Your task to perform on an android device: Go to Android settings Image 0: 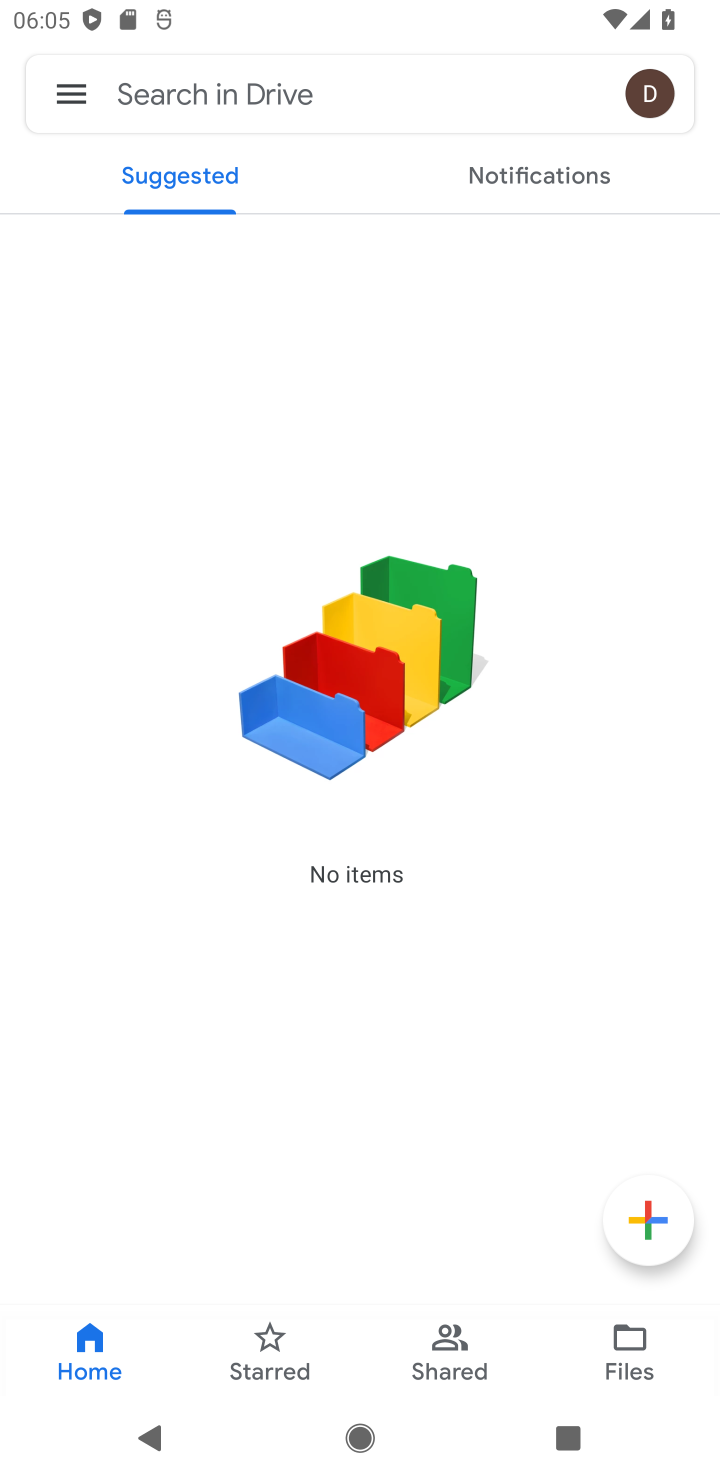
Step 0: press home button
Your task to perform on an android device: Go to Android settings Image 1: 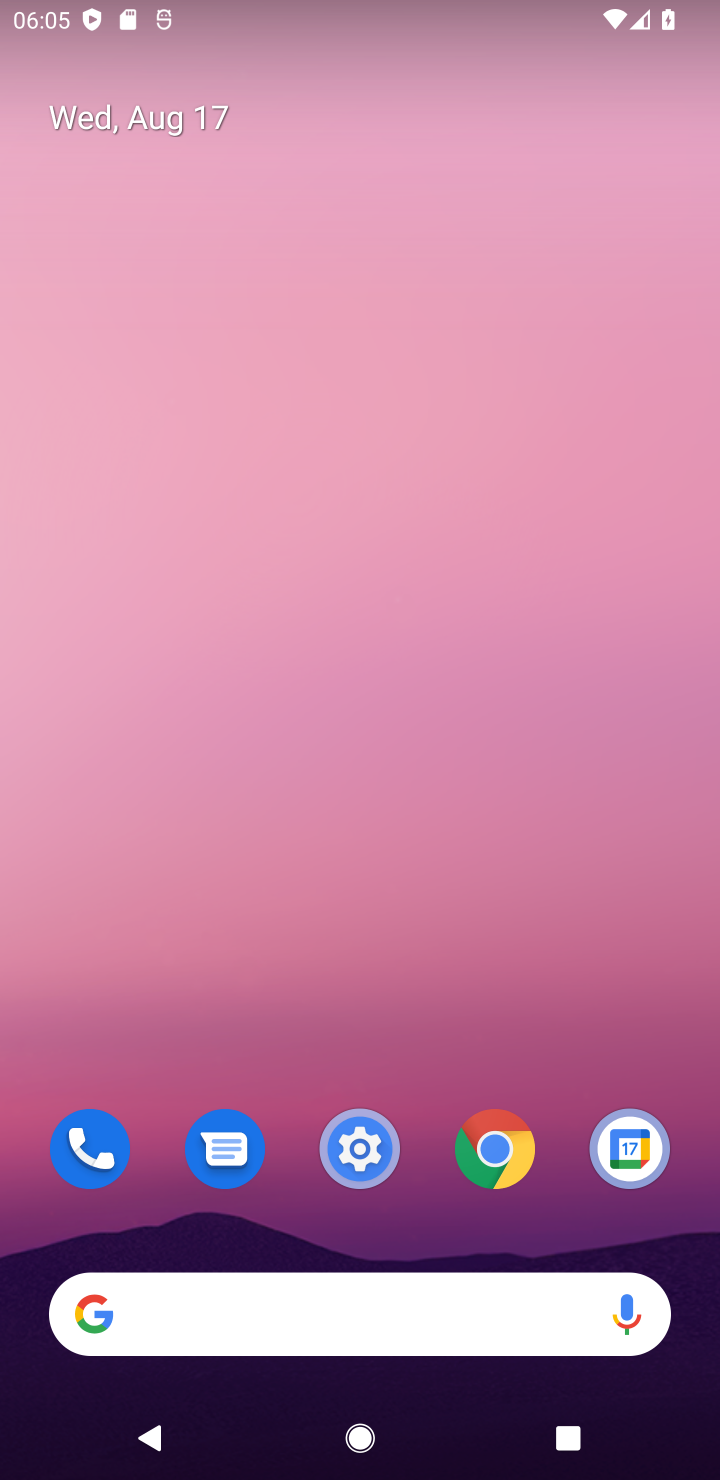
Step 1: click (367, 1138)
Your task to perform on an android device: Go to Android settings Image 2: 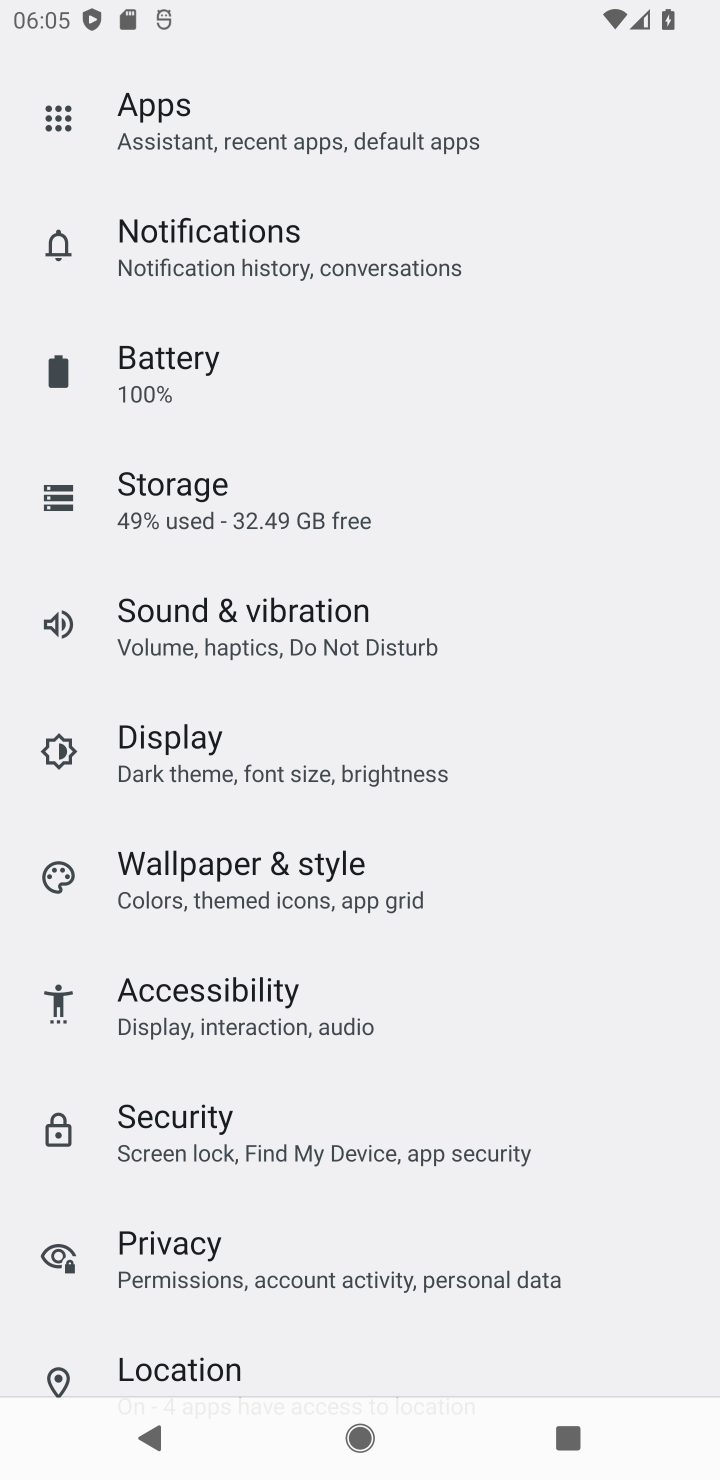
Step 2: task complete